Your task to perform on an android device: Turn on the flashlight Image 0: 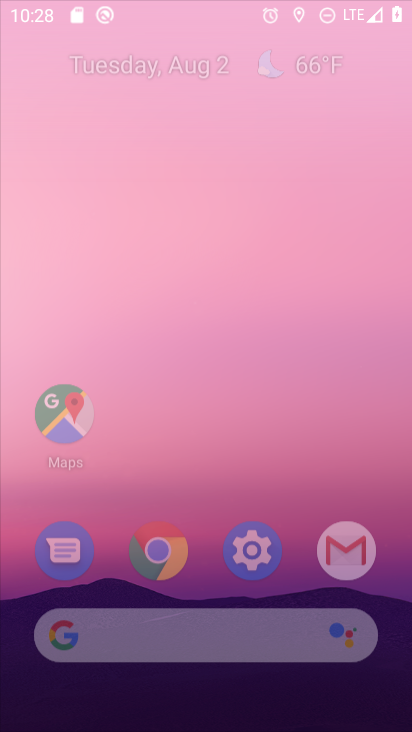
Step 0: press home button
Your task to perform on an android device: Turn on the flashlight Image 1: 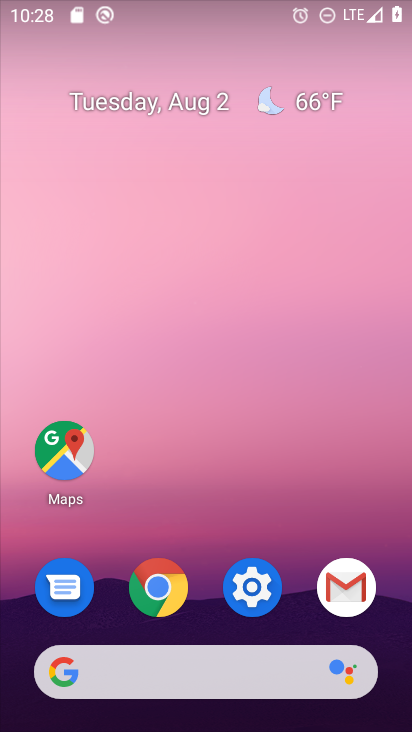
Step 1: click (247, 587)
Your task to perform on an android device: Turn on the flashlight Image 2: 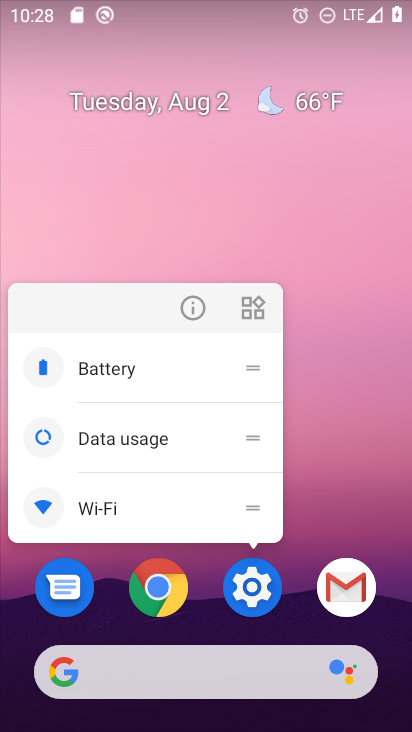
Step 2: click (258, 583)
Your task to perform on an android device: Turn on the flashlight Image 3: 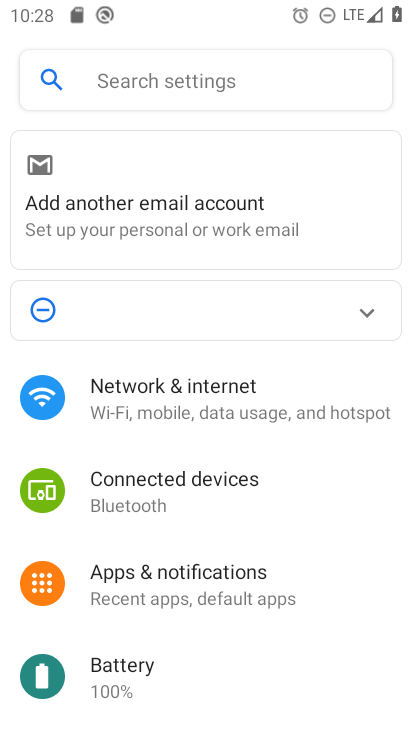
Step 3: click (120, 79)
Your task to perform on an android device: Turn on the flashlight Image 4: 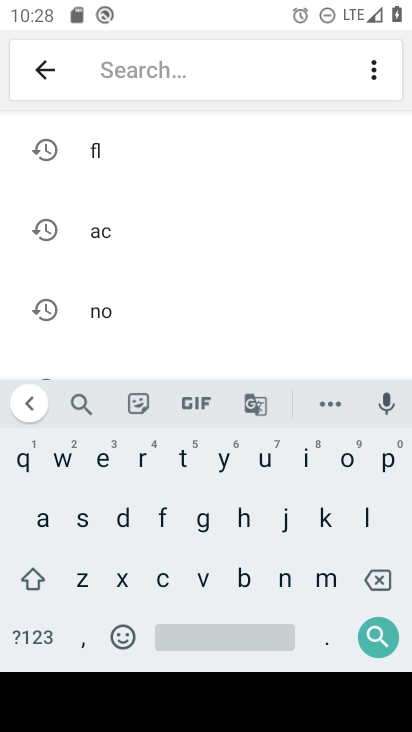
Step 4: click (136, 148)
Your task to perform on an android device: Turn on the flashlight Image 5: 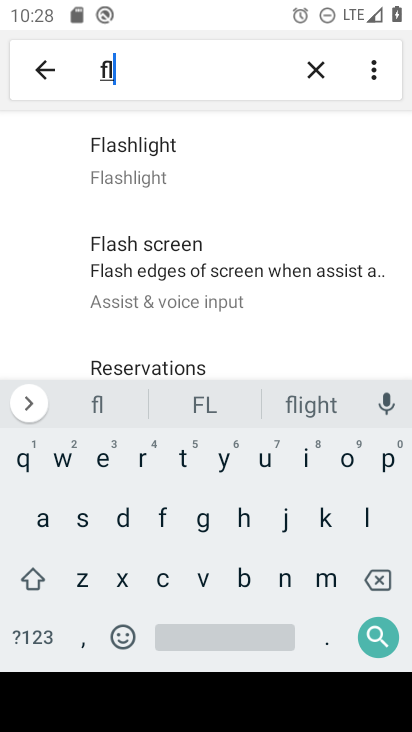
Step 5: click (196, 173)
Your task to perform on an android device: Turn on the flashlight Image 6: 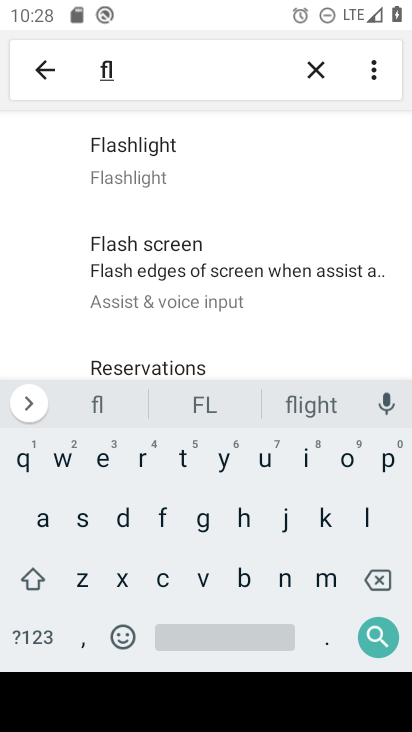
Step 6: task complete